Your task to perform on an android device: Check the weather Image 0: 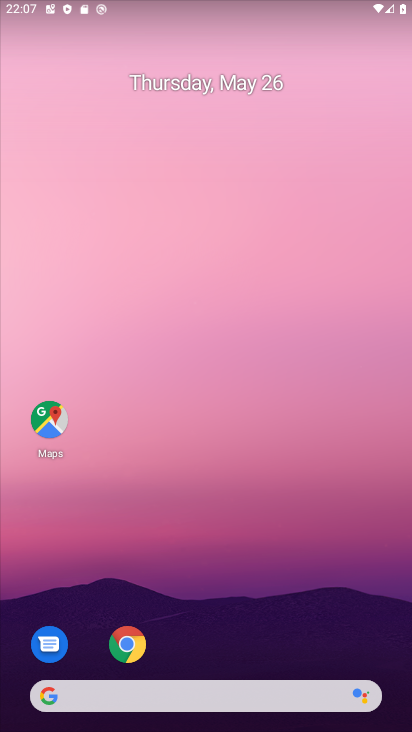
Step 0: click (279, 693)
Your task to perform on an android device: Check the weather Image 1: 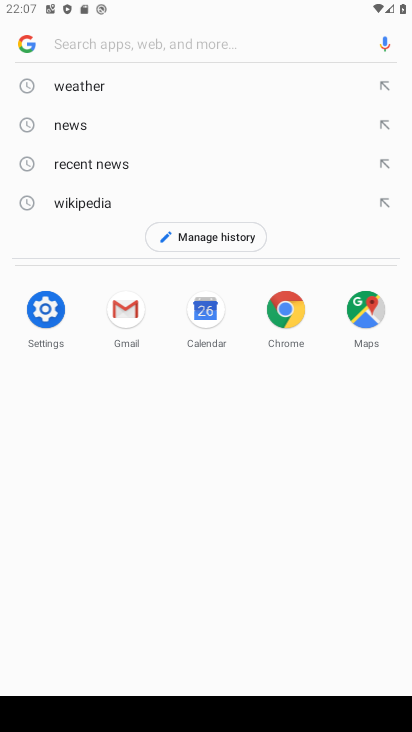
Step 1: click (90, 84)
Your task to perform on an android device: Check the weather Image 2: 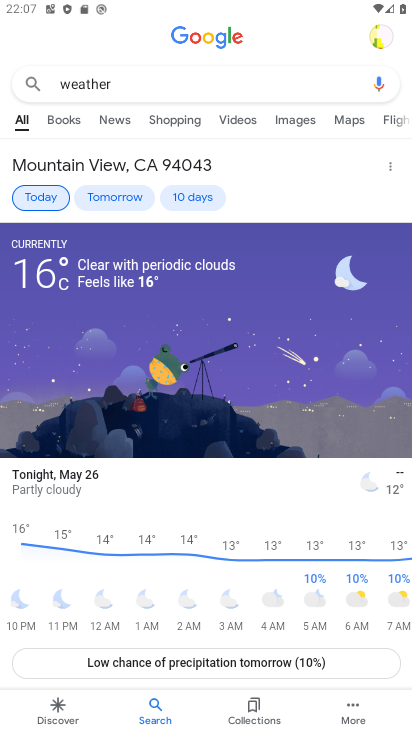
Step 2: task complete